Your task to perform on an android device: find snoozed emails in the gmail app Image 0: 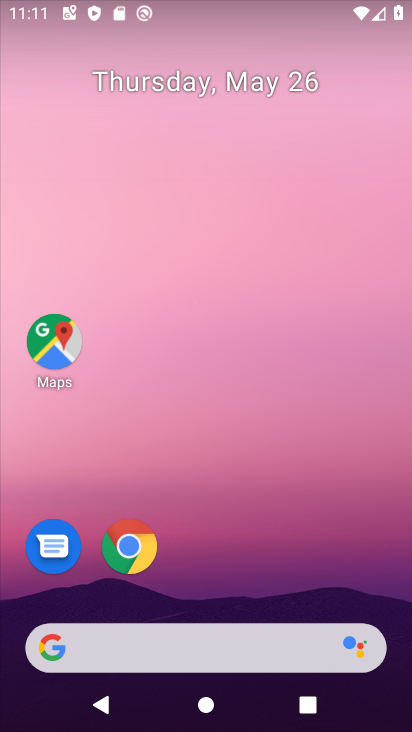
Step 0: drag from (235, 527) to (281, 93)
Your task to perform on an android device: find snoozed emails in the gmail app Image 1: 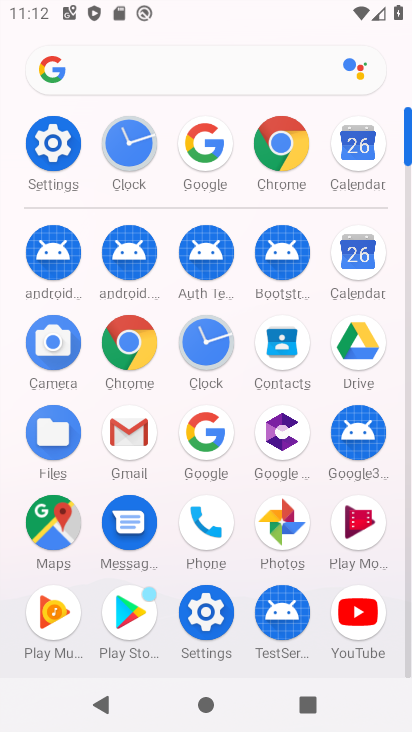
Step 1: click (139, 432)
Your task to perform on an android device: find snoozed emails in the gmail app Image 2: 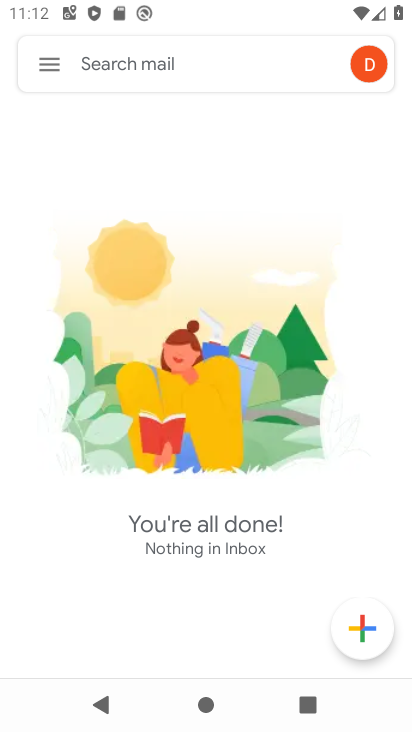
Step 2: click (49, 61)
Your task to perform on an android device: find snoozed emails in the gmail app Image 3: 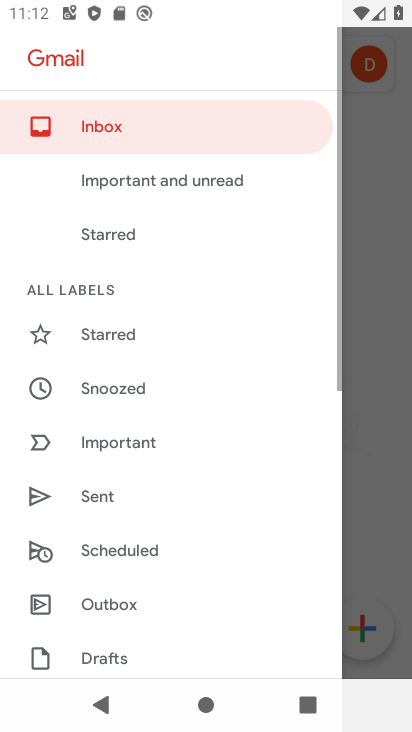
Step 3: drag from (114, 594) to (200, 189)
Your task to perform on an android device: find snoozed emails in the gmail app Image 4: 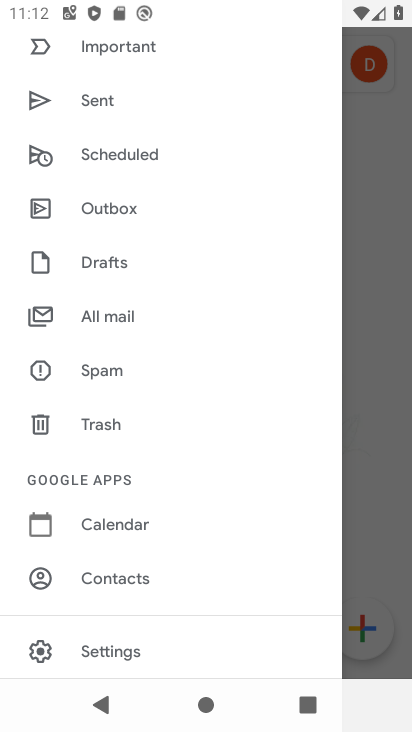
Step 4: click (114, 313)
Your task to perform on an android device: find snoozed emails in the gmail app Image 5: 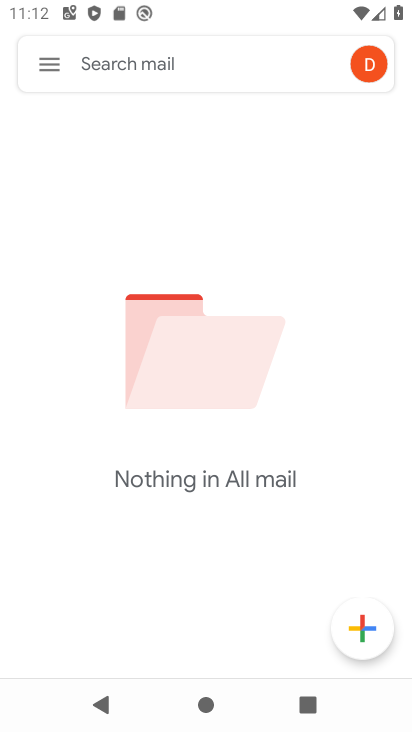
Step 5: task complete